Your task to perform on an android device: Open the stopwatch Image 0: 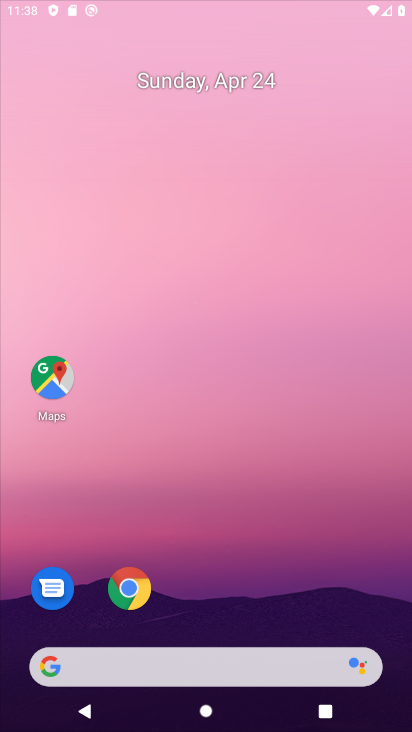
Step 0: drag from (296, 500) to (296, 78)
Your task to perform on an android device: Open the stopwatch Image 1: 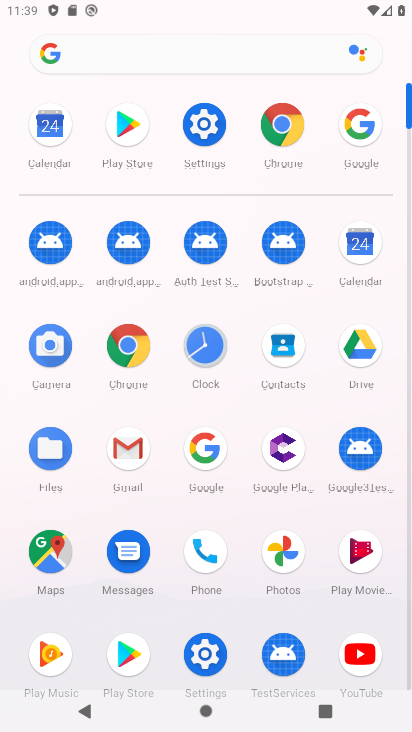
Step 1: click (208, 350)
Your task to perform on an android device: Open the stopwatch Image 2: 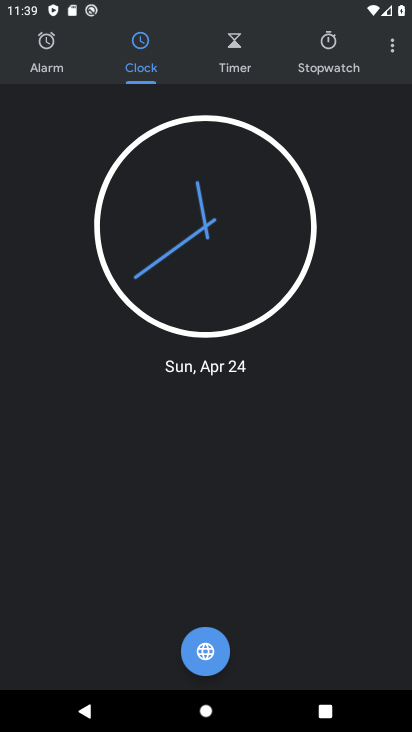
Step 2: click (327, 44)
Your task to perform on an android device: Open the stopwatch Image 3: 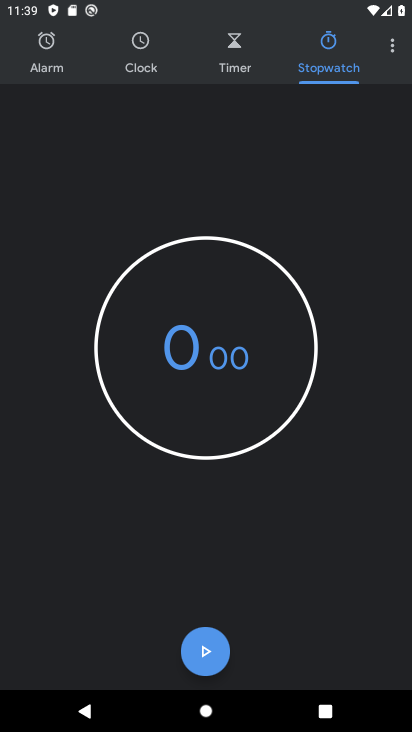
Step 3: task complete